Your task to perform on an android device: move an email to a new category in the gmail app Image 0: 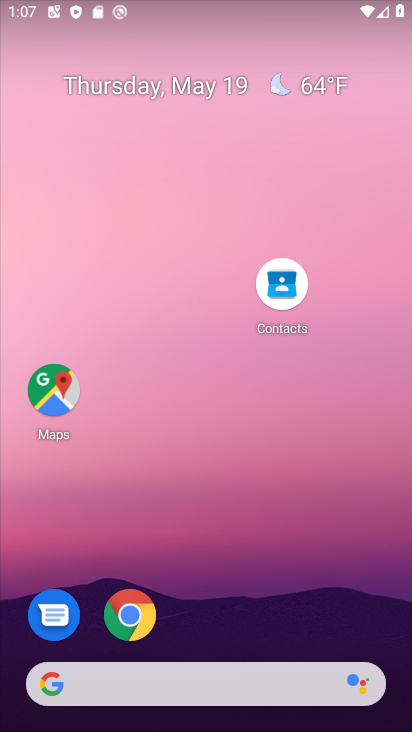
Step 0: drag from (258, 621) to (269, 21)
Your task to perform on an android device: move an email to a new category in the gmail app Image 1: 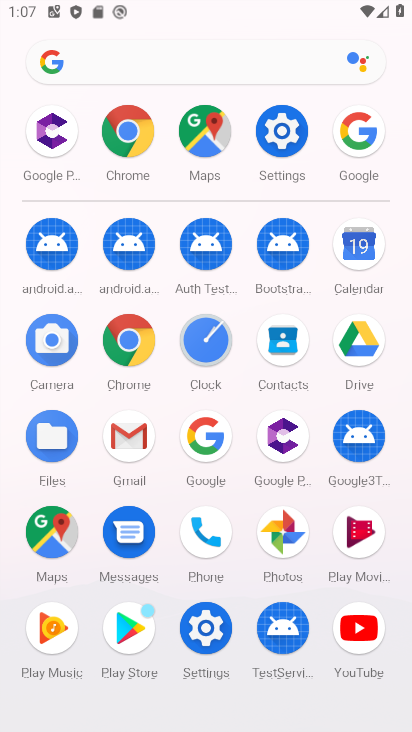
Step 1: click (128, 442)
Your task to perform on an android device: move an email to a new category in the gmail app Image 2: 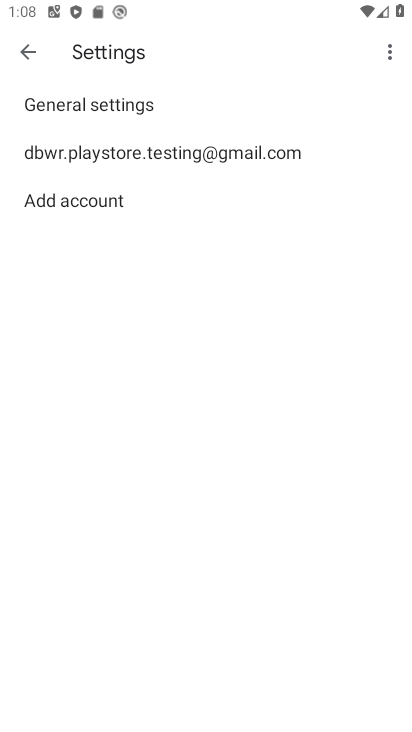
Step 2: click (34, 62)
Your task to perform on an android device: move an email to a new category in the gmail app Image 3: 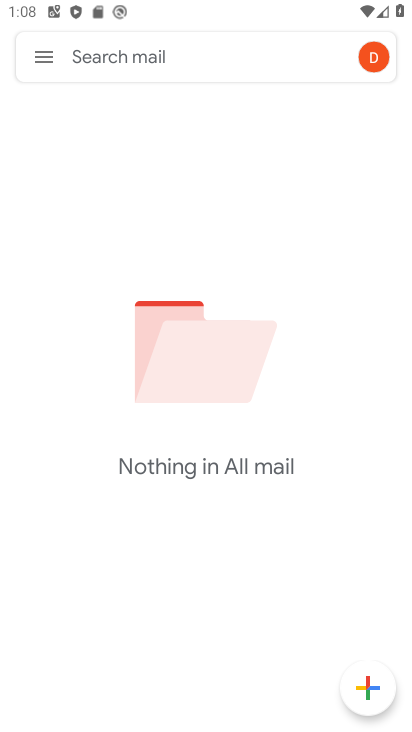
Step 3: click (51, 53)
Your task to perform on an android device: move an email to a new category in the gmail app Image 4: 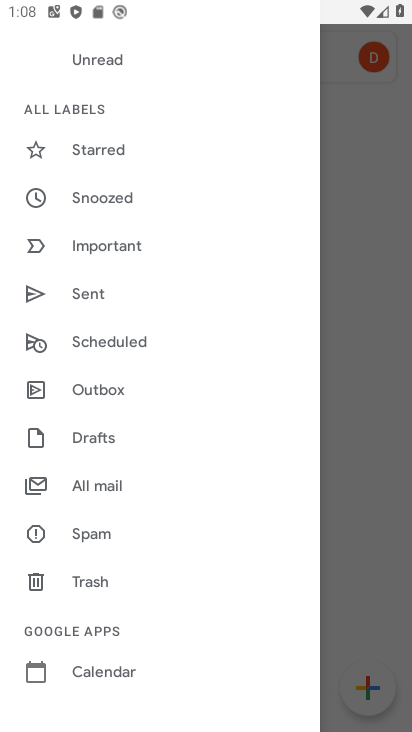
Step 4: click (119, 476)
Your task to perform on an android device: move an email to a new category in the gmail app Image 5: 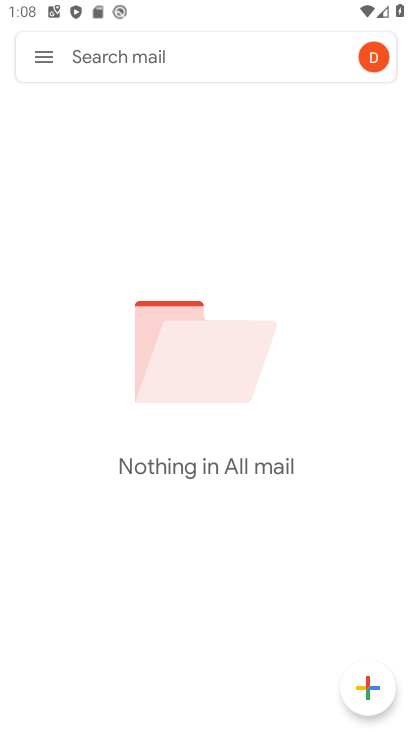
Step 5: task complete